Your task to perform on an android device: turn off notifications settings in the gmail app Image 0: 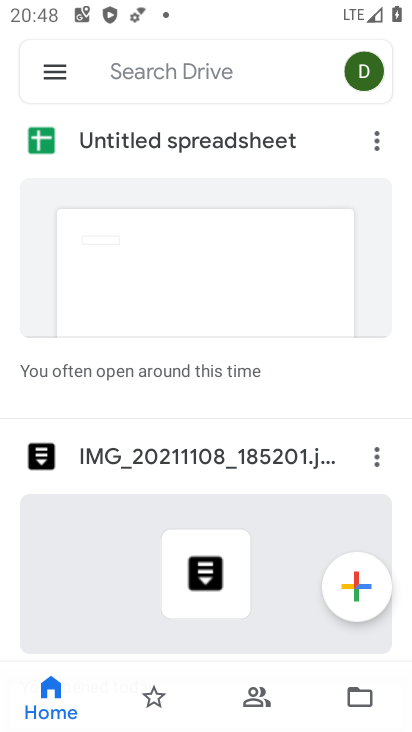
Step 0: press home button
Your task to perform on an android device: turn off notifications settings in the gmail app Image 1: 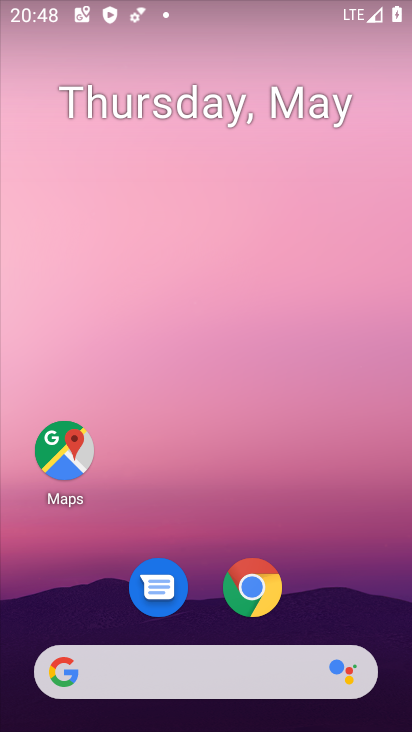
Step 1: drag from (98, 727) to (81, 73)
Your task to perform on an android device: turn off notifications settings in the gmail app Image 2: 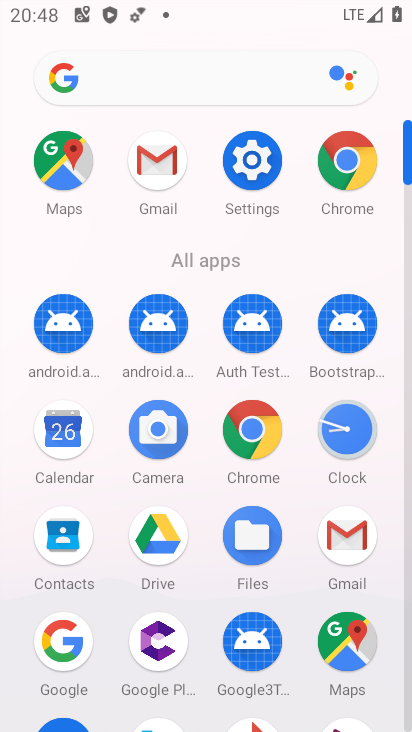
Step 2: click (366, 537)
Your task to perform on an android device: turn off notifications settings in the gmail app Image 3: 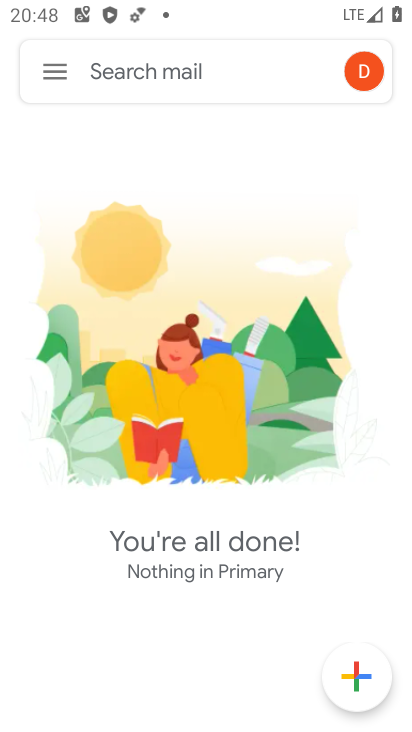
Step 3: click (50, 80)
Your task to perform on an android device: turn off notifications settings in the gmail app Image 4: 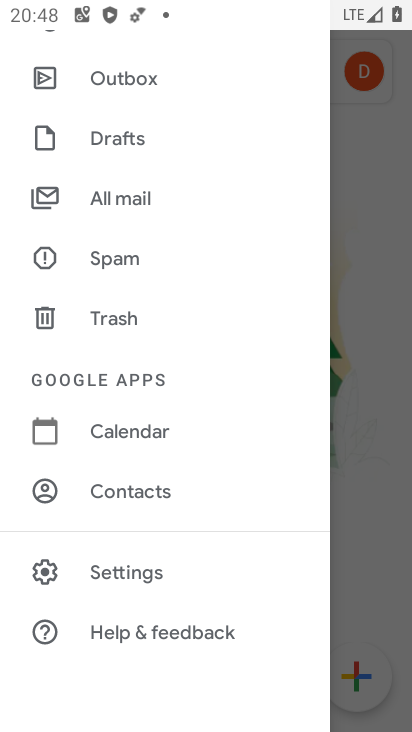
Step 4: click (144, 576)
Your task to perform on an android device: turn off notifications settings in the gmail app Image 5: 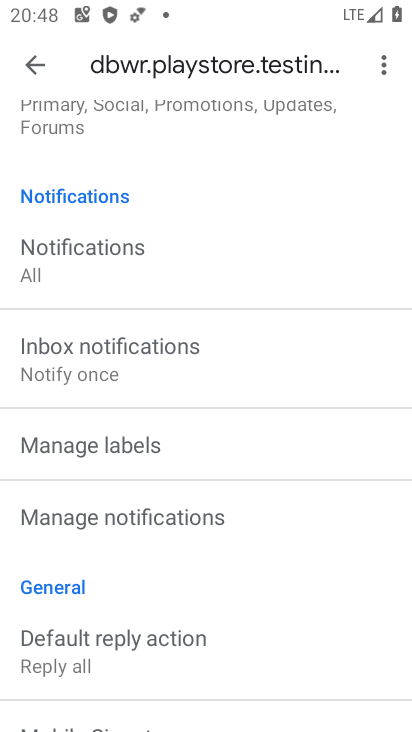
Step 5: click (121, 258)
Your task to perform on an android device: turn off notifications settings in the gmail app Image 6: 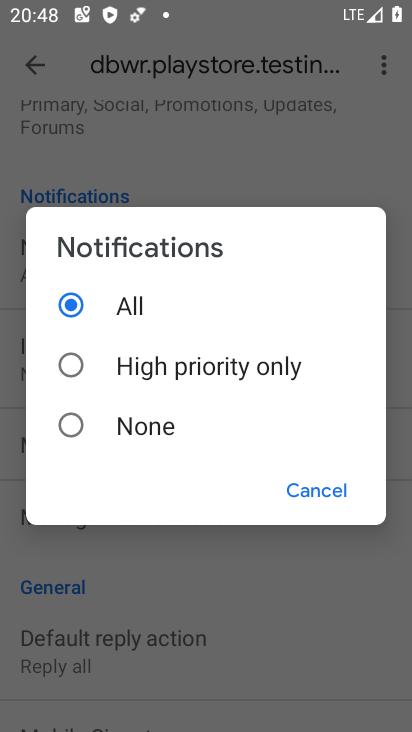
Step 6: click (163, 431)
Your task to perform on an android device: turn off notifications settings in the gmail app Image 7: 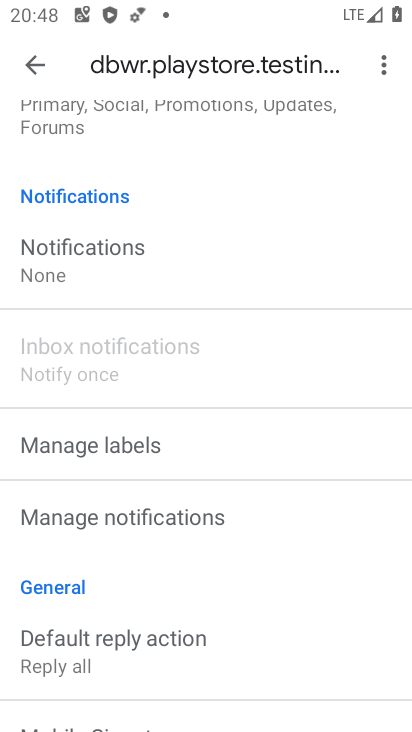
Step 7: task complete